Your task to perform on an android device: Look up the best rated power drills on Lowes.com Image 0: 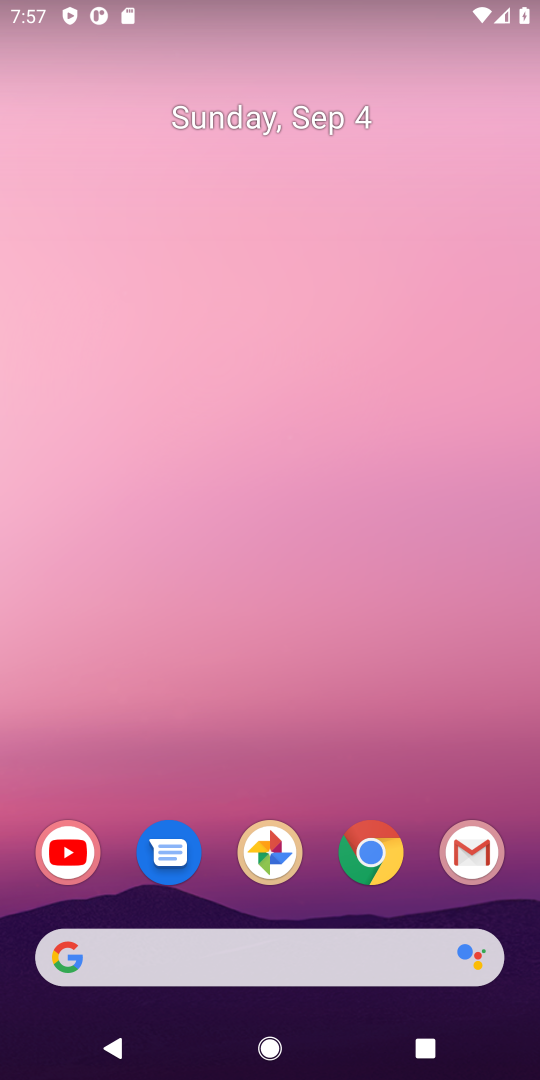
Step 0: drag from (338, 239) to (278, 50)
Your task to perform on an android device: Look up the best rated power drills on Lowes.com Image 1: 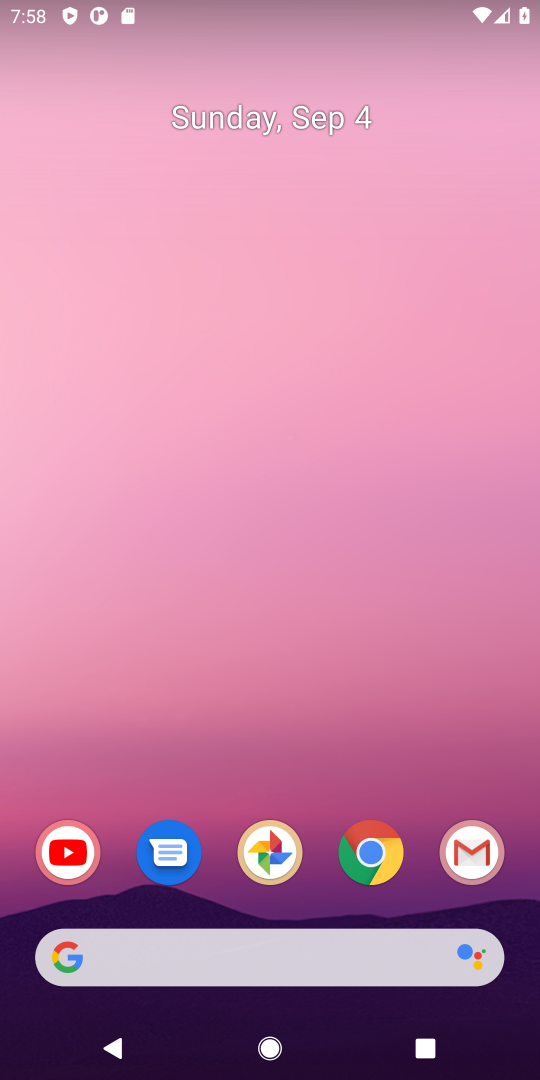
Step 1: drag from (414, 743) to (276, 87)
Your task to perform on an android device: Look up the best rated power drills on Lowes.com Image 2: 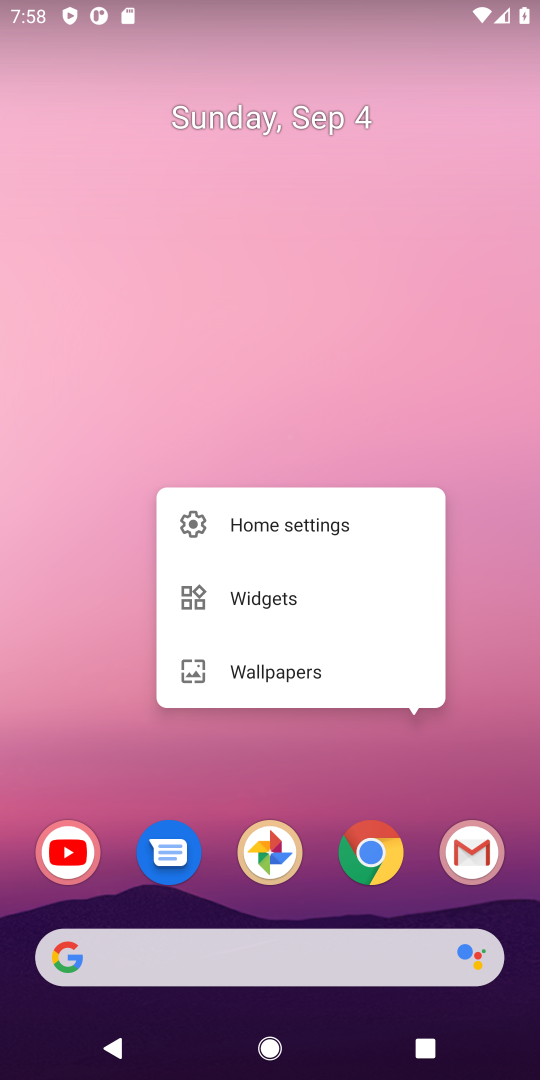
Step 2: click (336, 311)
Your task to perform on an android device: Look up the best rated power drills on Lowes.com Image 3: 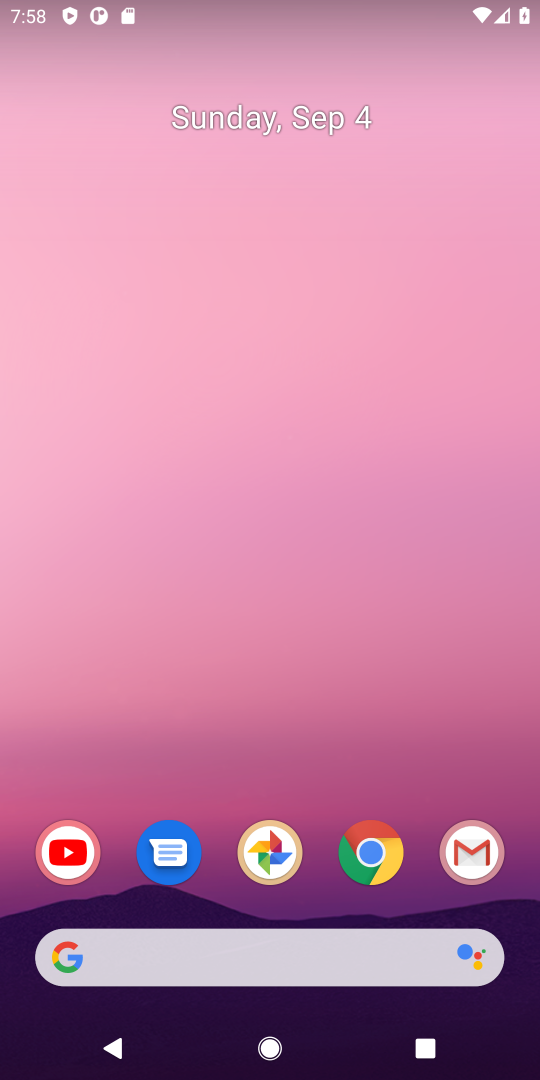
Step 3: drag from (434, 835) to (212, 186)
Your task to perform on an android device: Look up the best rated power drills on Lowes.com Image 4: 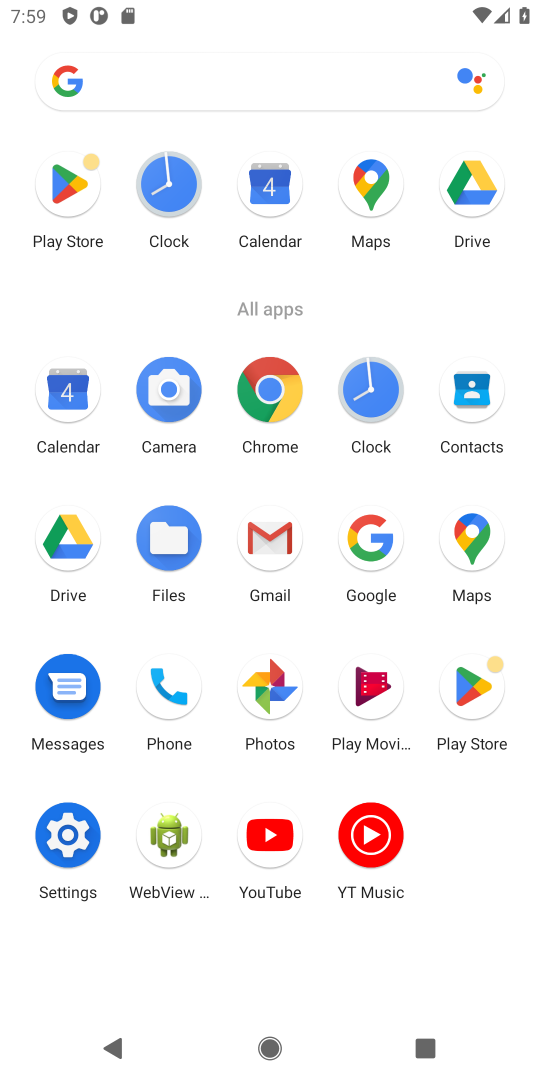
Step 4: click (366, 551)
Your task to perform on an android device: Look up the best rated power drills on Lowes.com Image 5: 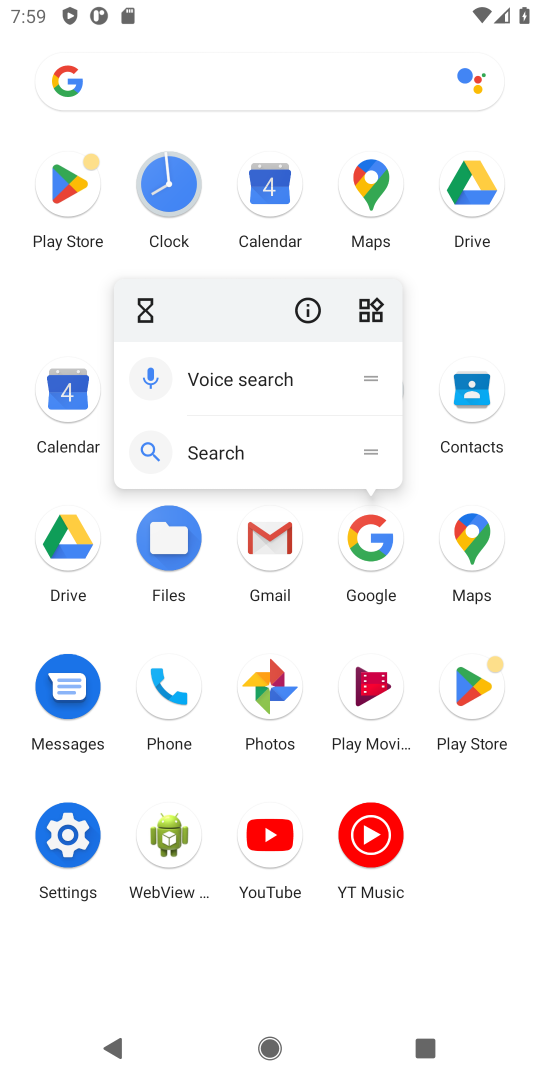
Step 5: click (366, 551)
Your task to perform on an android device: Look up the best rated power drills on Lowes.com Image 6: 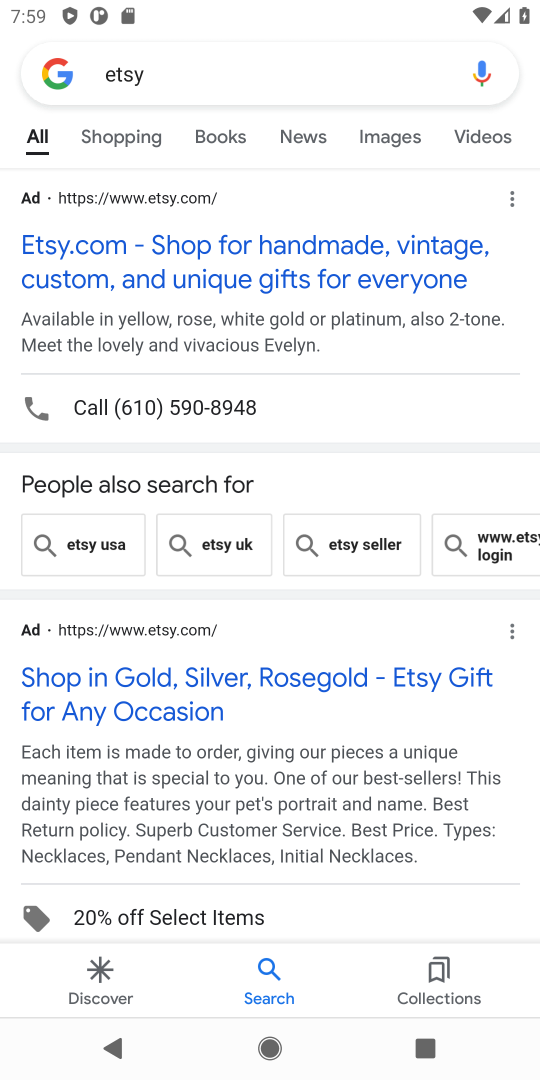
Step 6: press back button
Your task to perform on an android device: Look up the best rated power drills on Lowes.com Image 7: 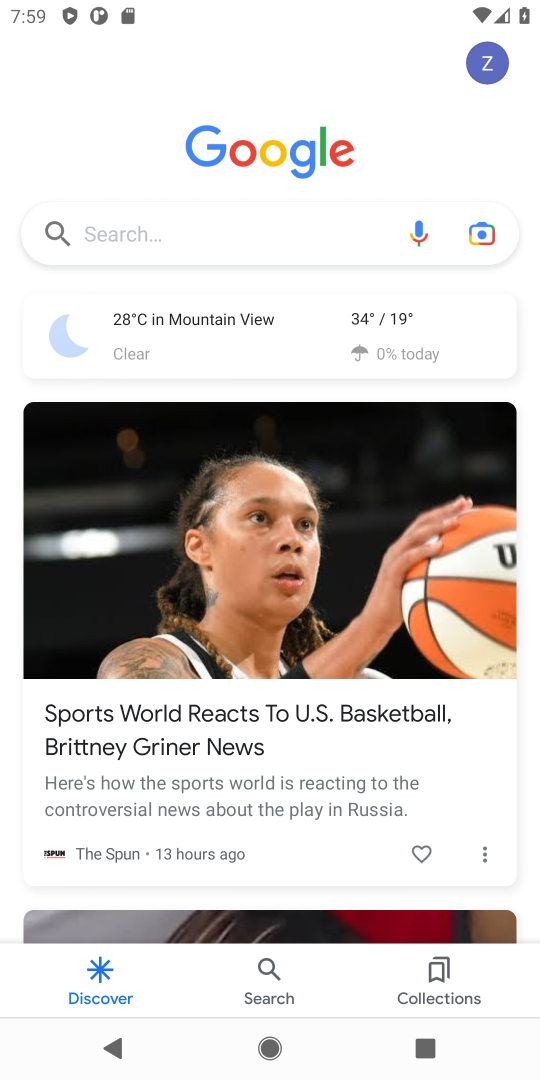
Step 7: click (178, 225)
Your task to perform on an android device: Look up the best rated power drills on Lowes.com Image 8: 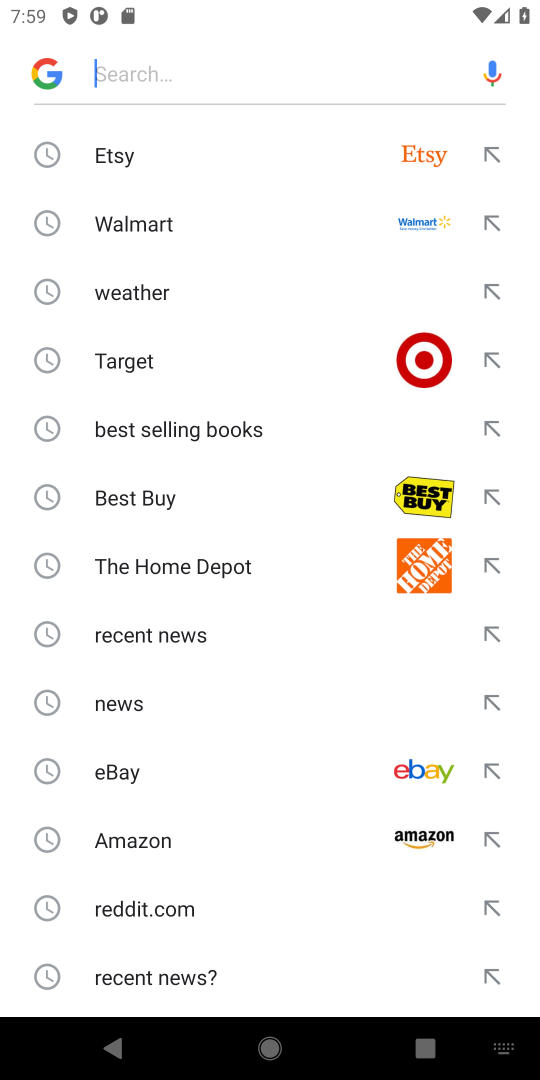
Step 8: type "Lowes.com"
Your task to perform on an android device: Look up the best rated power drills on Lowes.com Image 9: 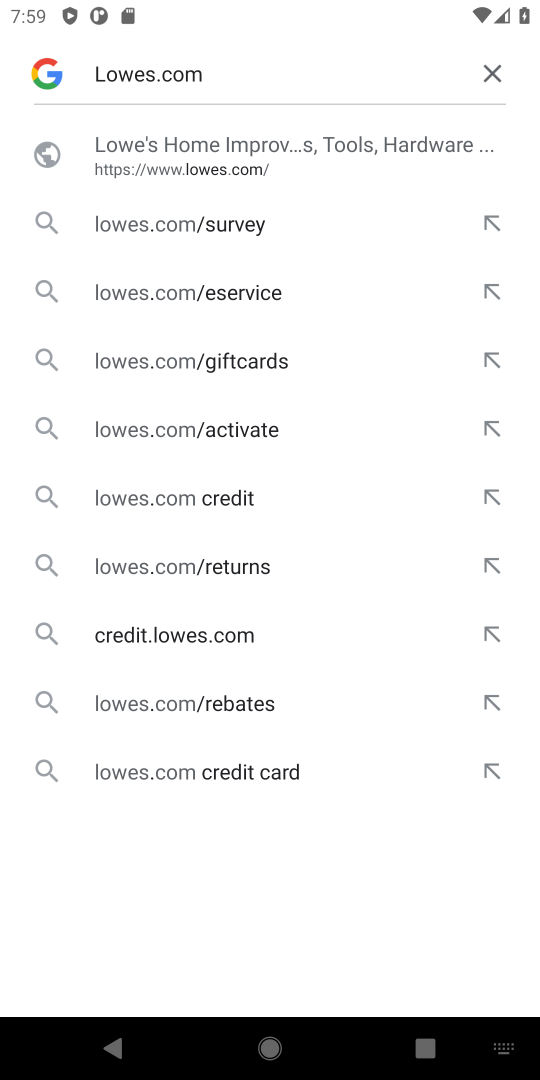
Step 9: click (176, 156)
Your task to perform on an android device: Look up the best rated power drills on Lowes.com Image 10: 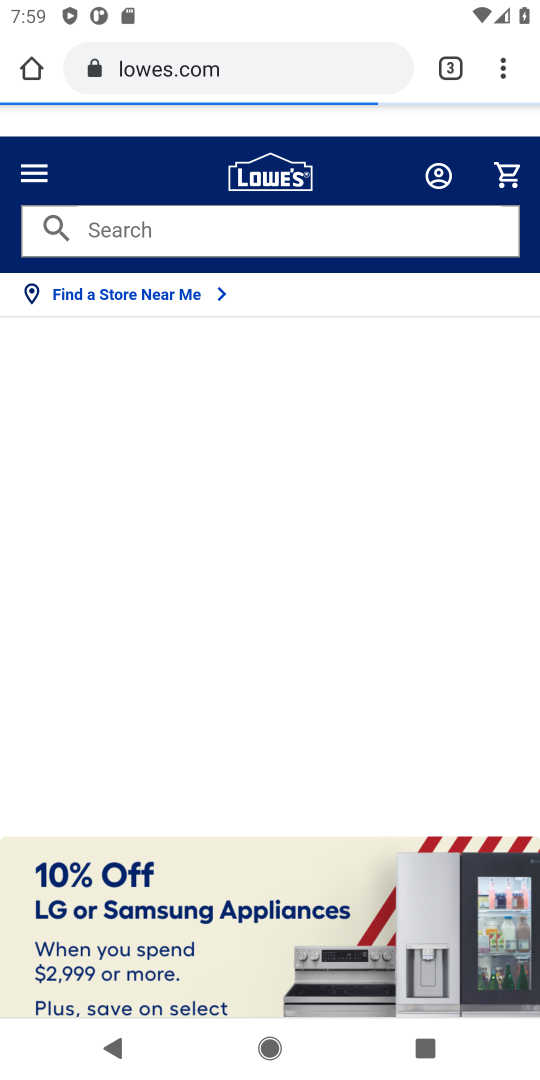
Step 10: click (162, 231)
Your task to perform on an android device: Look up the best rated power drills on Lowes.com Image 11: 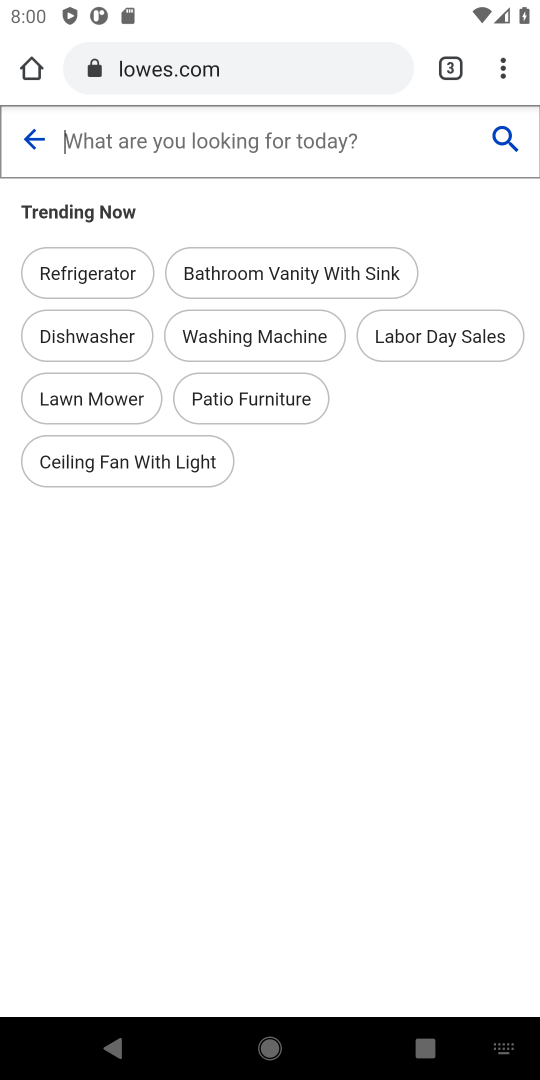
Step 11: click (190, 143)
Your task to perform on an android device: Look up the best rated power drills on Lowes.com Image 12: 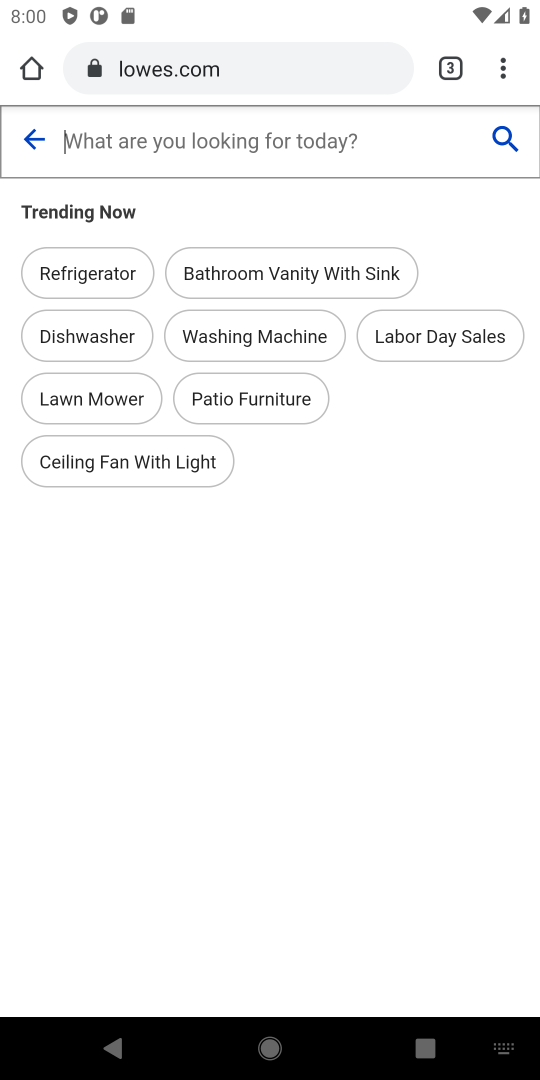
Step 12: type "power drills"
Your task to perform on an android device: Look up the best rated power drills on Lowes.com Image 13: 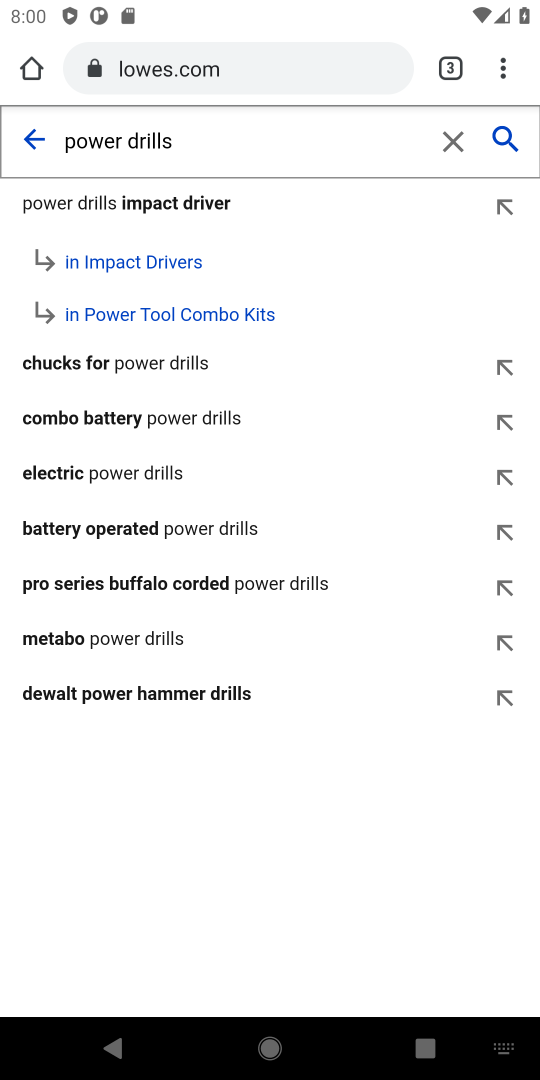
Step 13: click (497, 139)
Your task to perform on an android device: Look up the best rated power drills on Lowes.com Image 14: 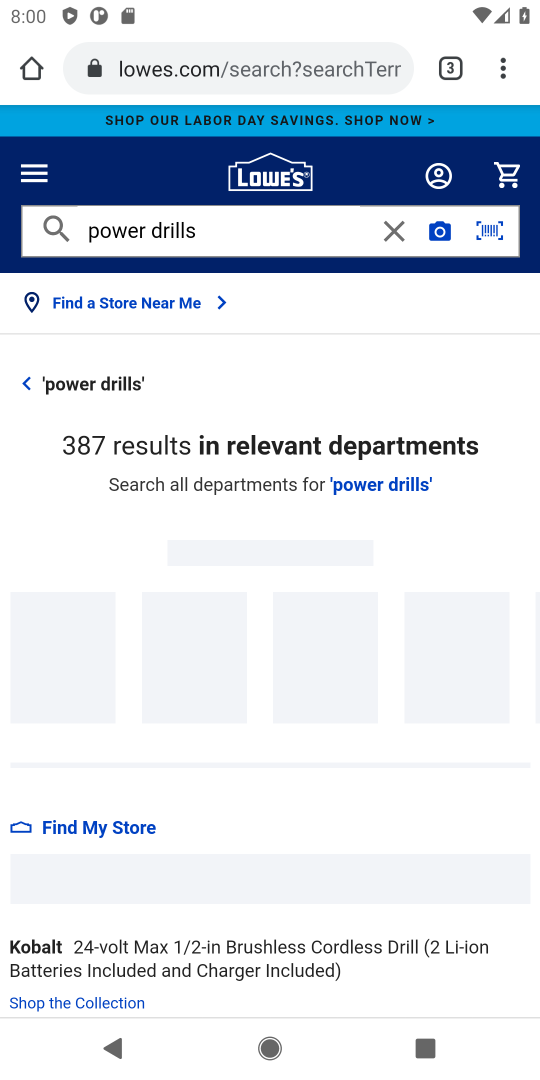
Step 14: task complete